Your task to perform on an android device: turn on bluetooth scan Image 0: 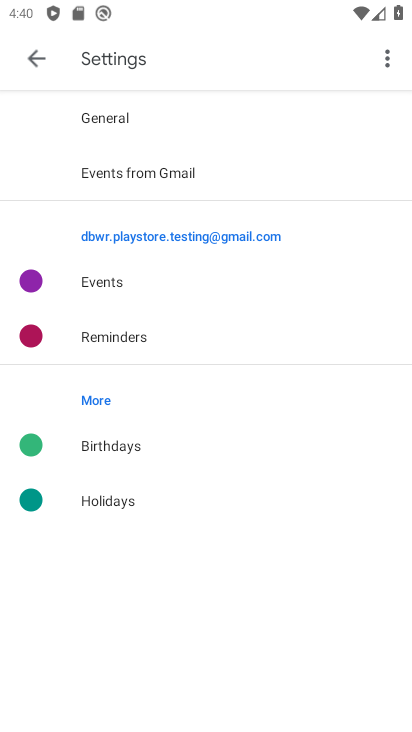
Step 0: press home button
Your task to perform on an android device: turn on bluetooth scan Image 1: 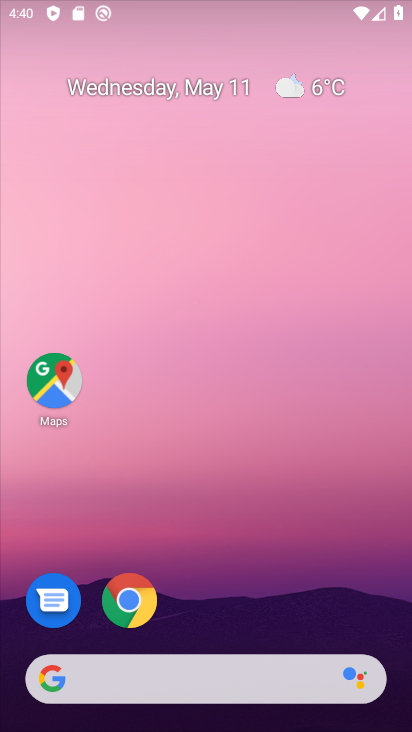
Step 1: drag from (259, 671) to (218, 161)
Your task to perform on an android device: turn on bluetooth scan Image 2: 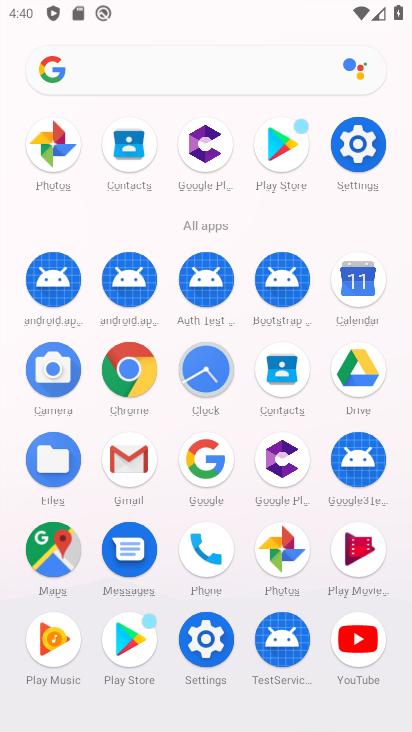
Step 2: click (368, 150)
Your task to perform on an android device: turn on bluetooth scan Image 3: 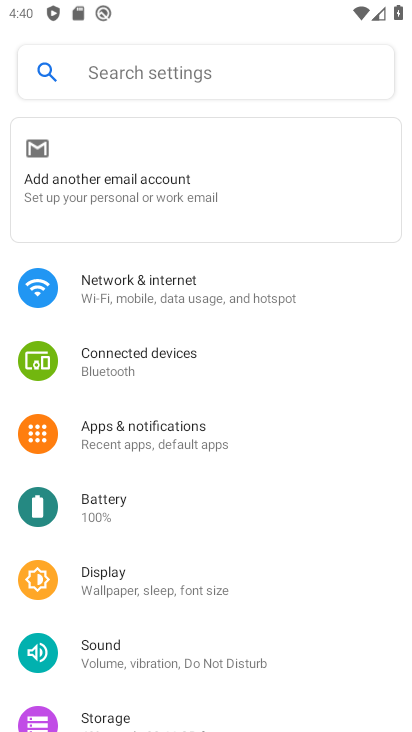
Step 3: drag from (209, 594) to (235, 12)
Your task to perform on an android device: turn on bluetooth scan Image 4: 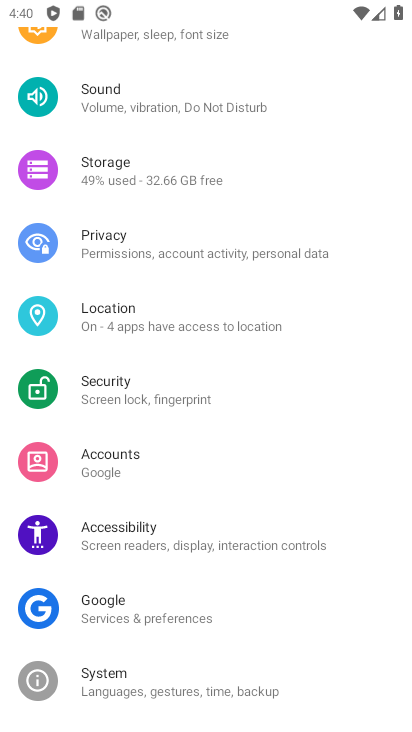
Step 4: drag from (226, 504) to (247, 282)
Your task to perform on an android device: turn on bluetooth scan Image 5: 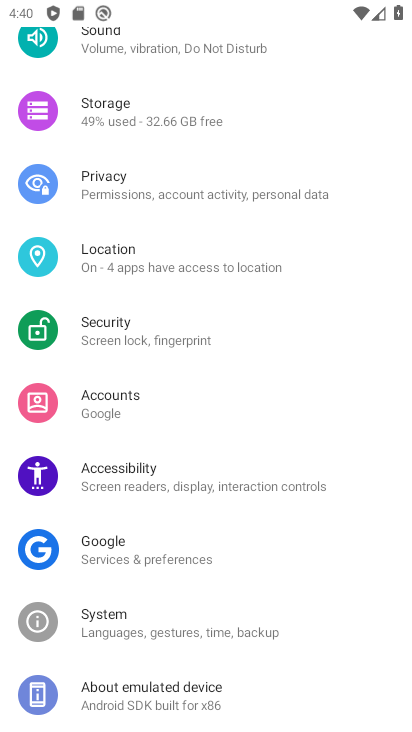
Step 5: click (189, 256)
Your task to perform on an android device: turn on bluetooth scan Image 6: 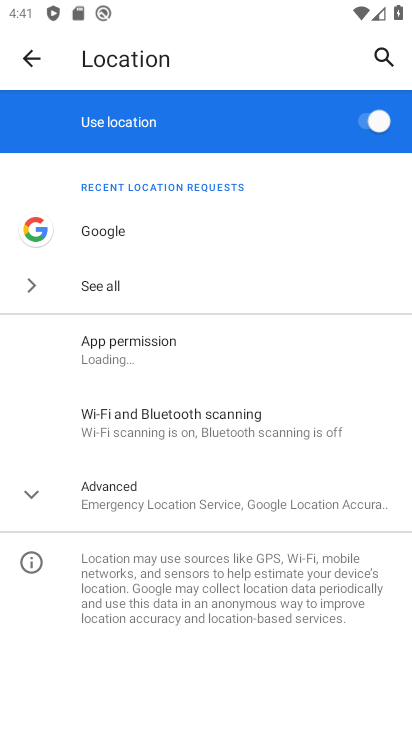
Step 6: click (212, 514)
Your task to perform on an android device: turn on bluetooth scan Image 7: 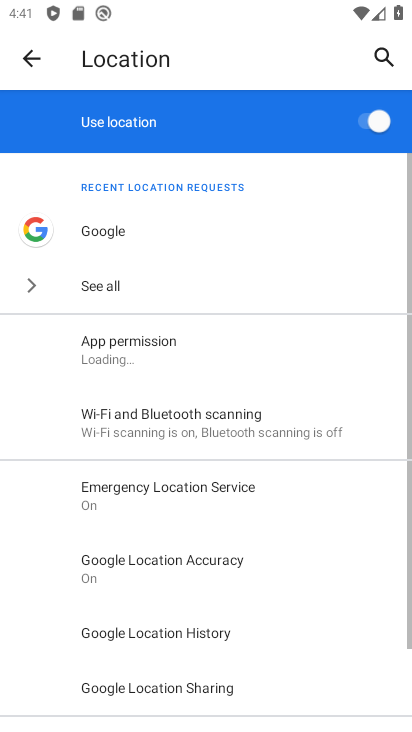
Step 7: drag from (362, 626) to (259, 158)
Your task to perform on an android device: turn on bluetooth scan Image 8: 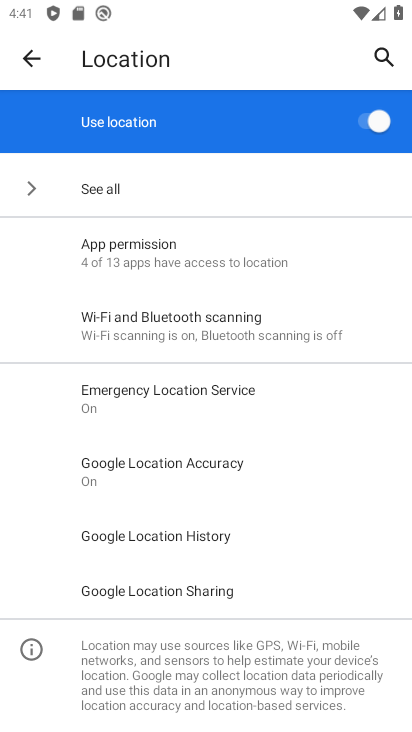
Step 8: click (244, 320)
Your task to perform on an android device: turn on bluetooth scan Image 9: 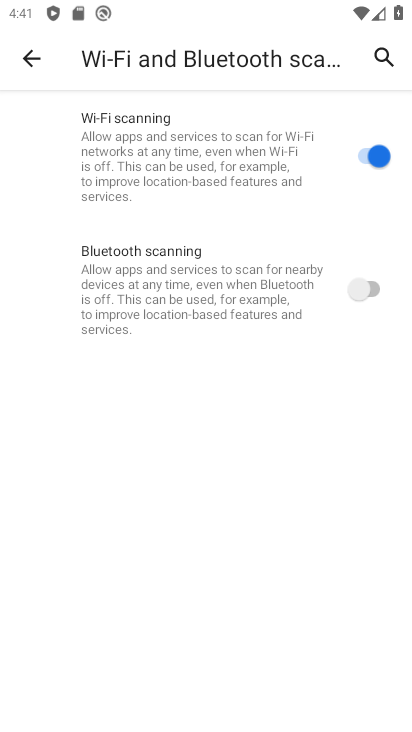
Step 9: click (361, 300)
Your task to perform on an android device: turn on bluetooth scan Image 10: 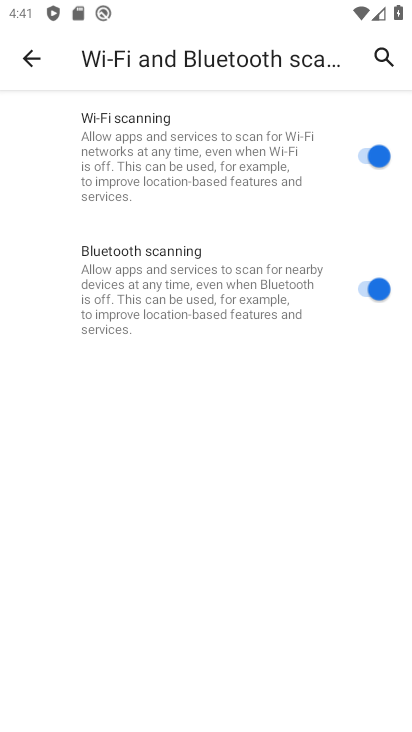
Step 10: task complete